Your task to perform on an android device: Go to display settings Image 0: 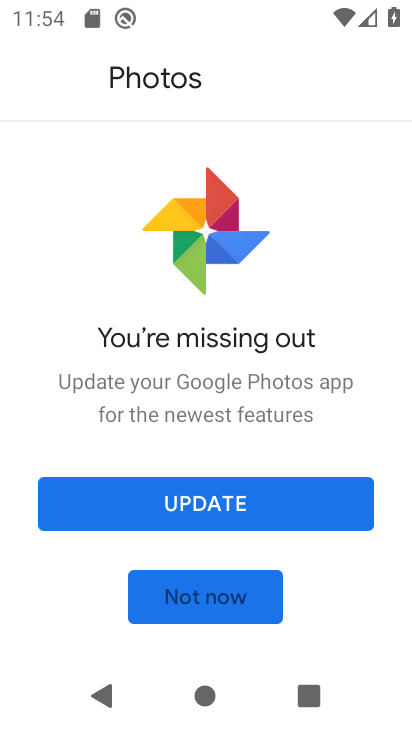
Step 0: press home button
Your task to perform on an android device: Go to display settings Image 1: 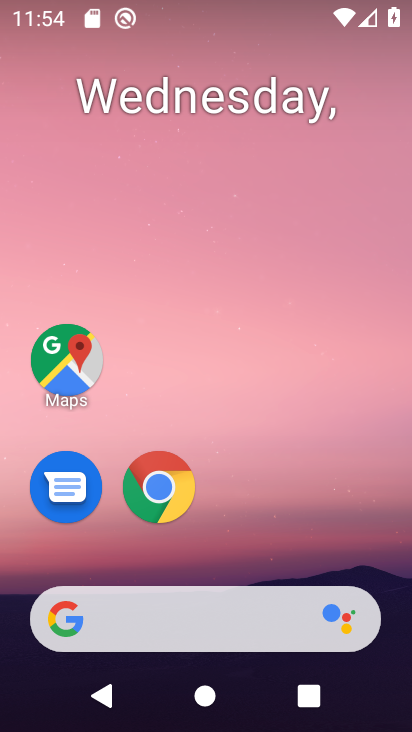
Step 1: drag from (366, 517) to (373, 152)
Your task to perform on an android device: Go to display settings Image 2: 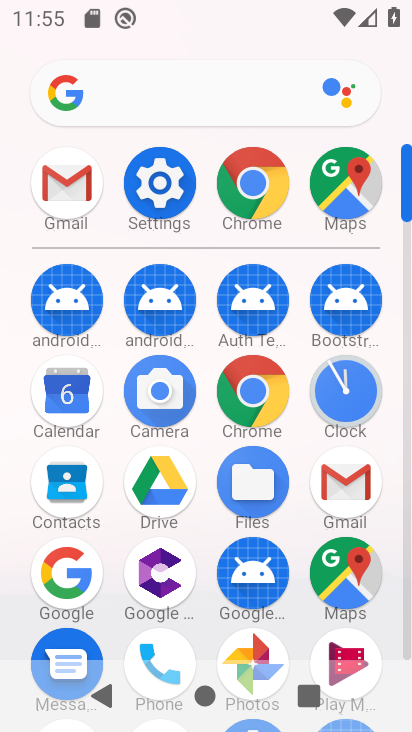
Step 2: click (166, 199)
Your task to perform on an android device: Go to display settings Image 3: 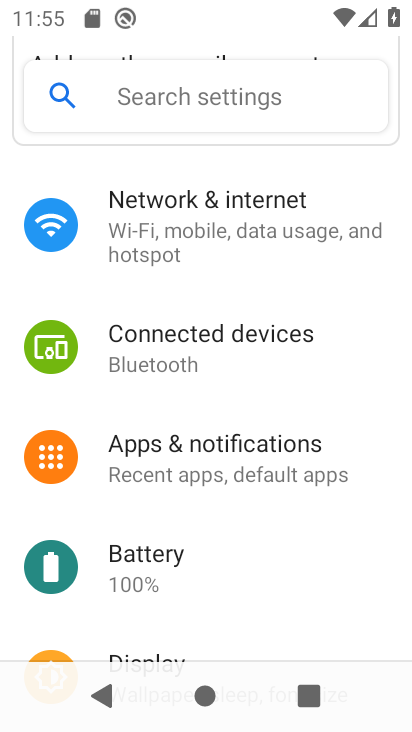
Step 3: drag from (340, 548) to (369, 321)
Your task to perform on an android device: Go to display settings Image 4: 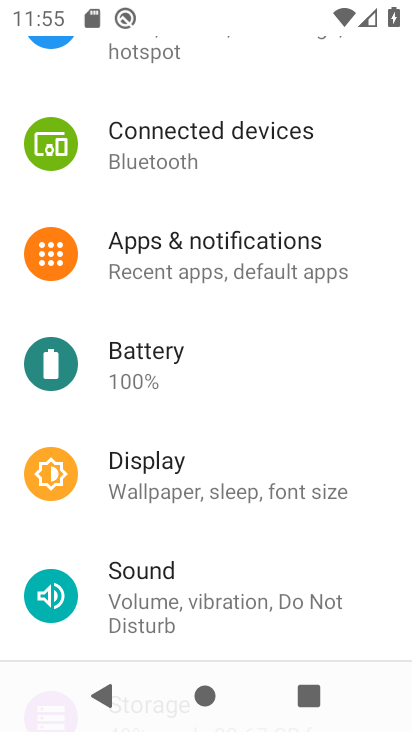
Step 4: drag from (363, 546) to (353, 370)
Your task to perform on an android device: Go to display settings Image 5: 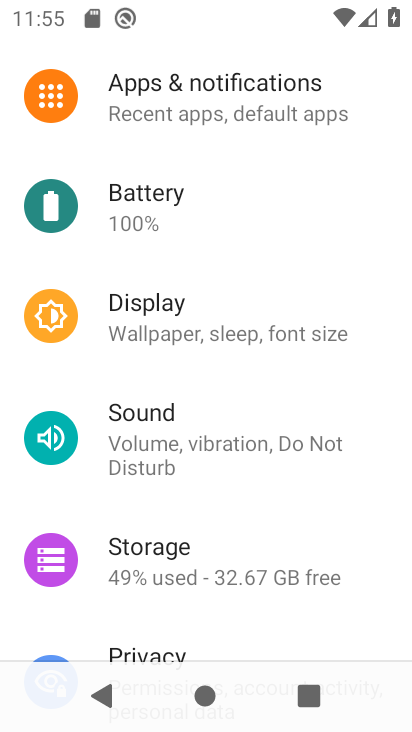
Step 5: click (320, 336)
Your task to perform on an android device: Go to display settings Image 6: 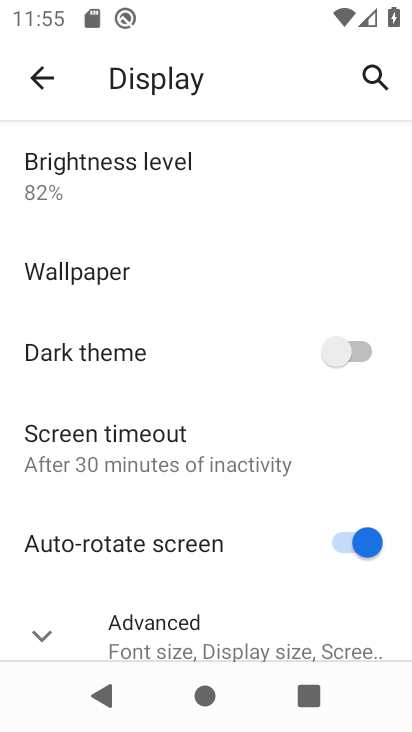
Step 6: click (202, 641)
Your task to perform on an android device: Go to display settings Image 7: 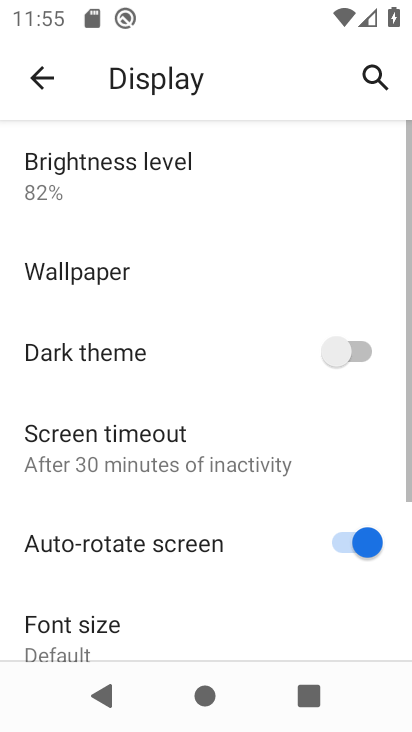
Step 7: task complete